Your task to perform on an android device: Open Wikipedia Image 0: 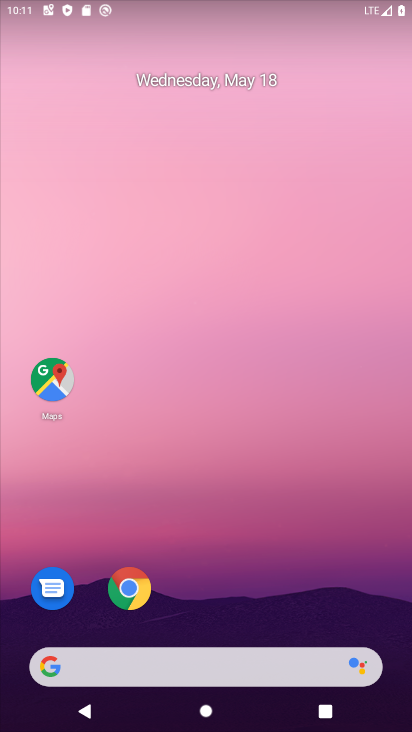
Step 0: click (131, 599)
Your task to perform on an android device: Open Wikipedia Image 1: 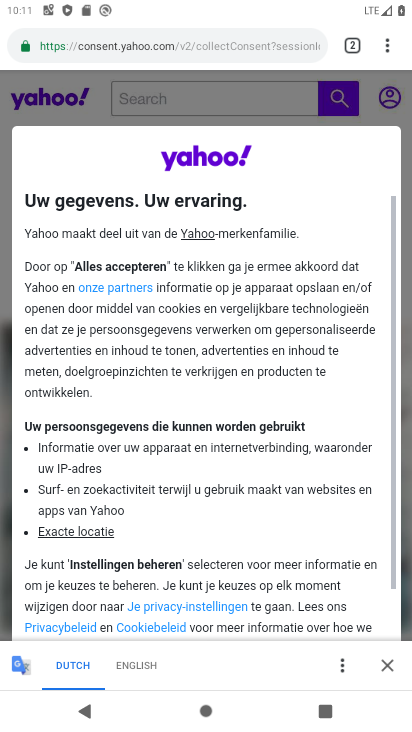
Step 1: click (115, 44)
Your task to perform on an android device: Open Wikipedia Image 2: 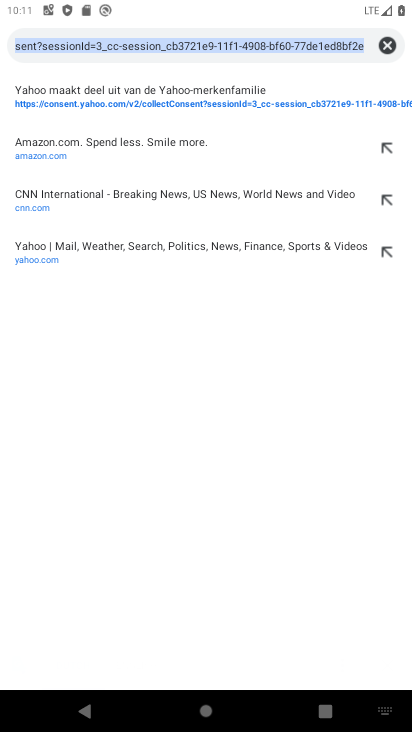
Step 2: click (380, 40)
Your task to perform on an android device: Open Wikipedia Image 3: 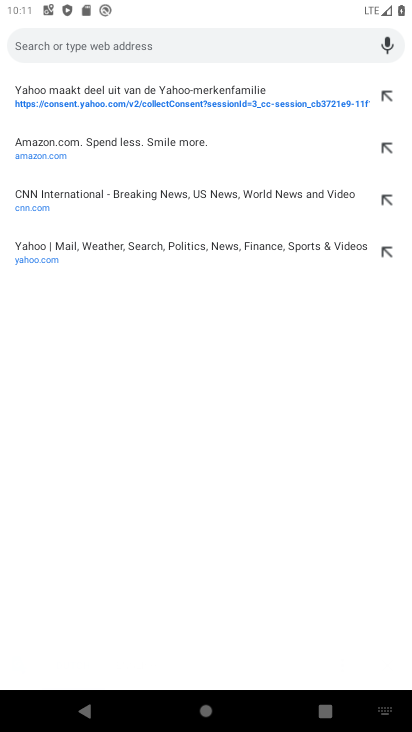
Step 3: type "wikipedia"
Your task to perform on an android device: Open Wikipedia Image 4: 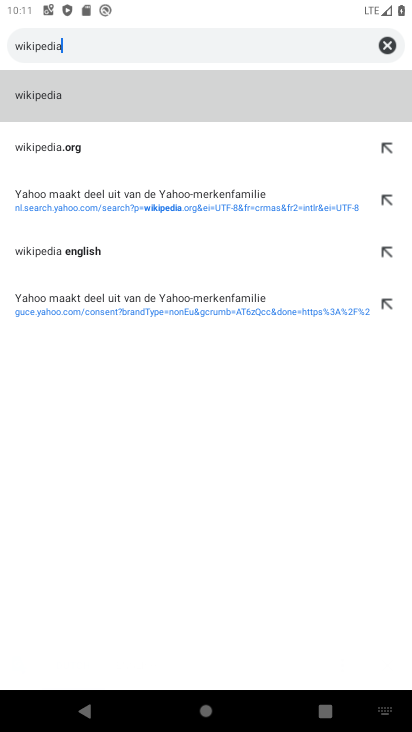
Step 4: click (49, 94)
Your task to perform on an android device: Open Wikipedia Image 5: 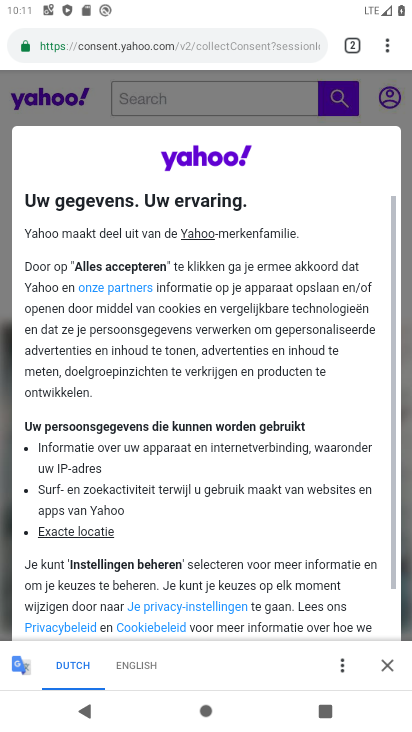
Step 5: click (115, 50)
Your task to perform on an android device: Open Wikipedia Image 6: 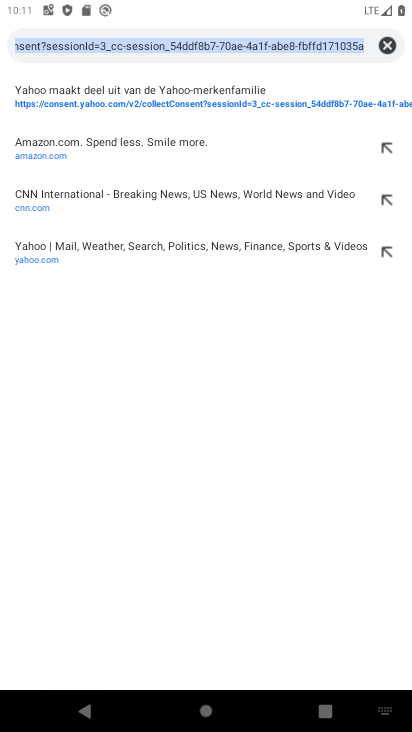
Step 6: click (385, 43)
Your task to perform on an android device: Open Wikipedia Image 7: 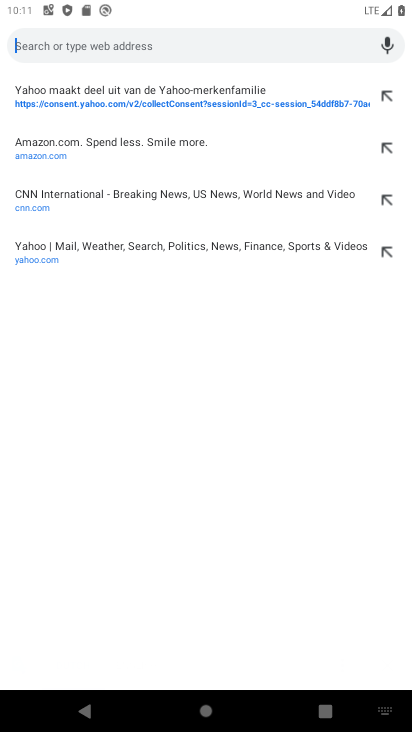
Step 7: type "wikipedia"
Your task to perform on an android device: Open Wikipedia Image 8: 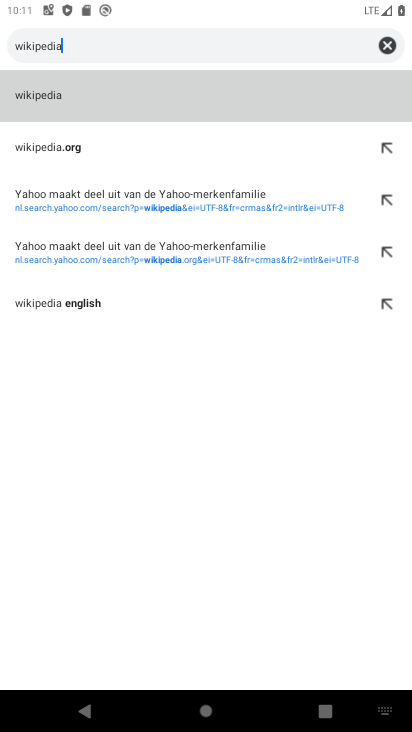
Step 8: click (42, 149)
Your task to perform on an android device: Open Wikipedia Image 9: 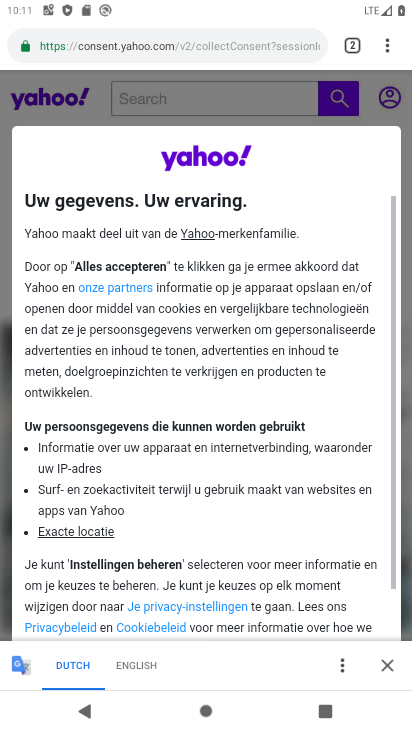
Step 9: task complete